Your task to perform on an android device: change alarm snooze length Image 0: 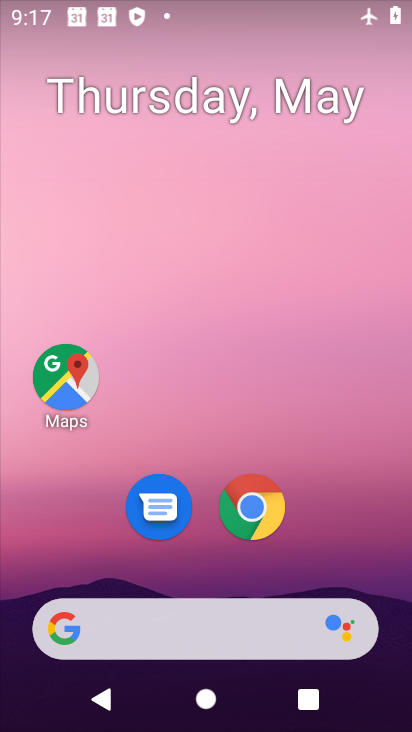
Step 0: drag from (276, 576) to (297, 66)
Your task to perform on an android device: change alarm snooze length Image 1: 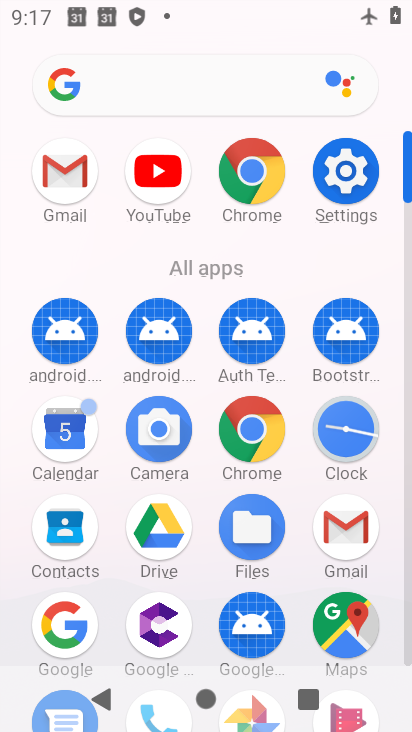
Step 1: click (353, 203)
Your task to perform on an android device: change alarm snooze length Image 2: 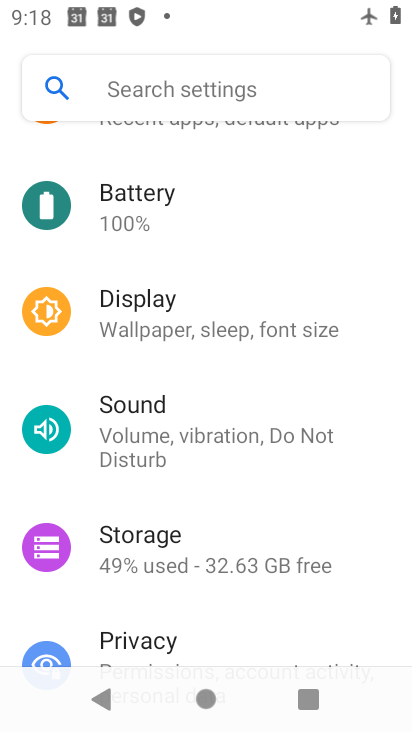
Step 2: press home button
Your task to perform on an android device: change alarm snooze length Image 3: 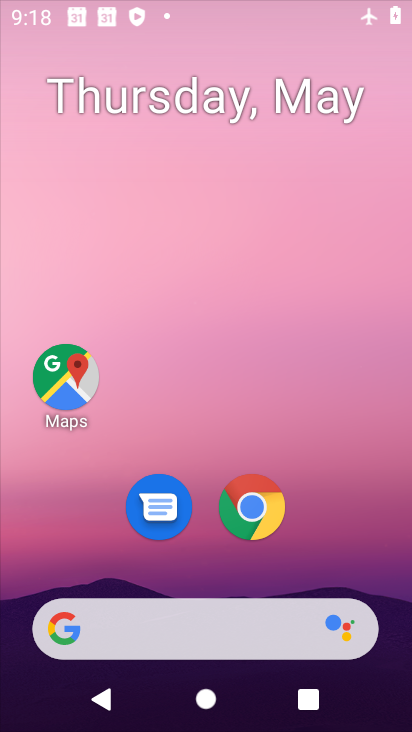
Step 3: drag from (272, 582) to (294, 117)
Your task to perform on an android device: change alarm snooze length Image 4: 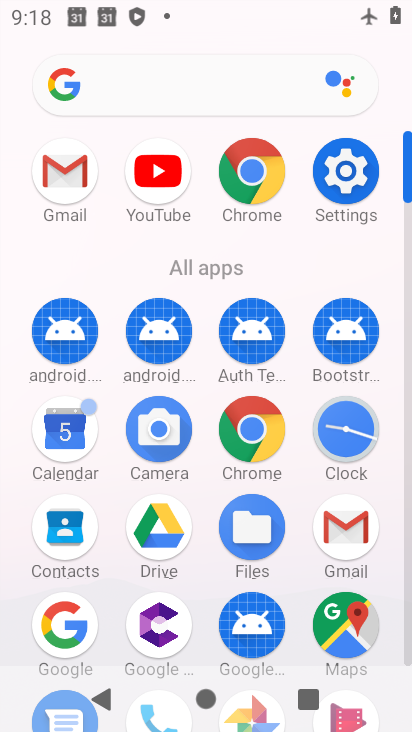
Step 4: click (344, 436)
Your task to perform on an android device: change alarm snooze length Image 5: 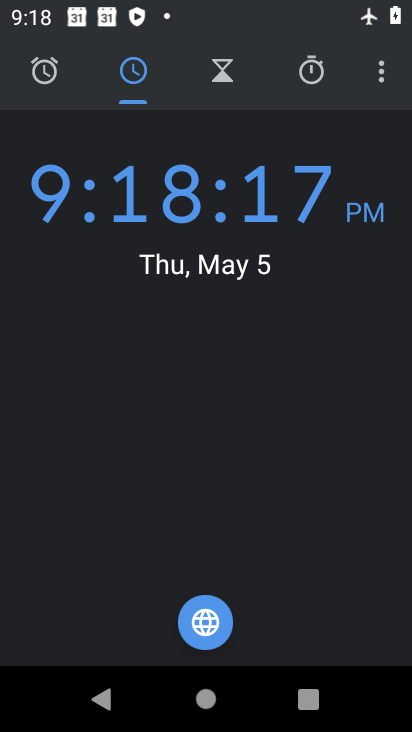
Step 5: click (387, 74)
Your task to perform on an android device: change alarm snooze length Image 6: 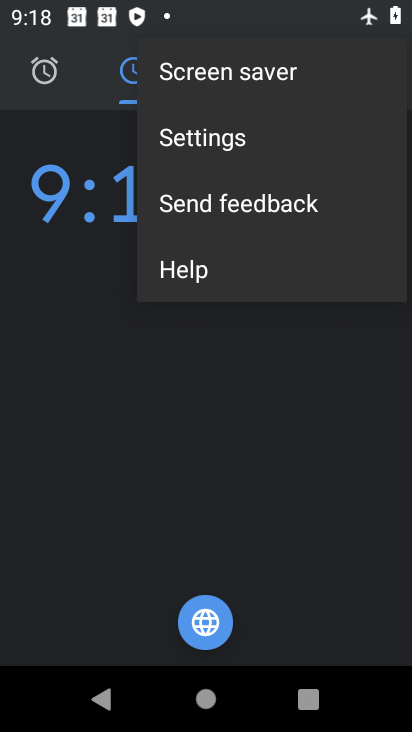
Step 6: click (258, 140)
Your task to perform on an android device: change alarm snooze length Image 7: 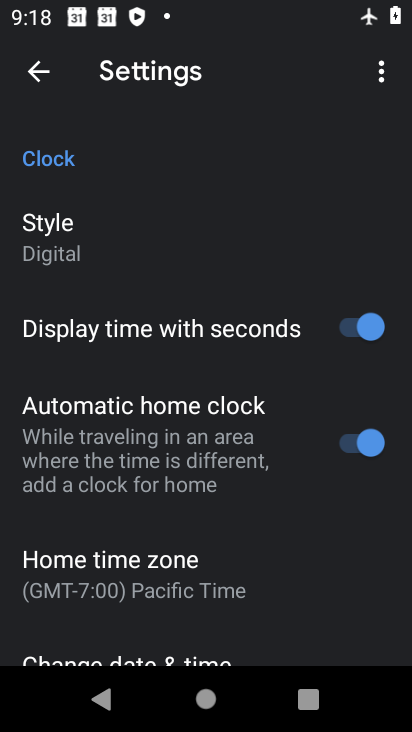
Step 7: drag from (237, 579) to (228, 173)
Your task to perform on an android device: change alarm snooze length Image 8: 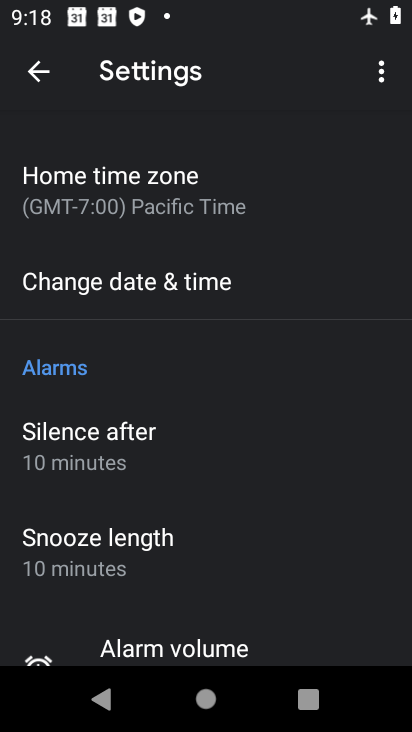
Step 8: click (178, 550)
Your task to perform on an android device: change alarm snooze length Image 9: 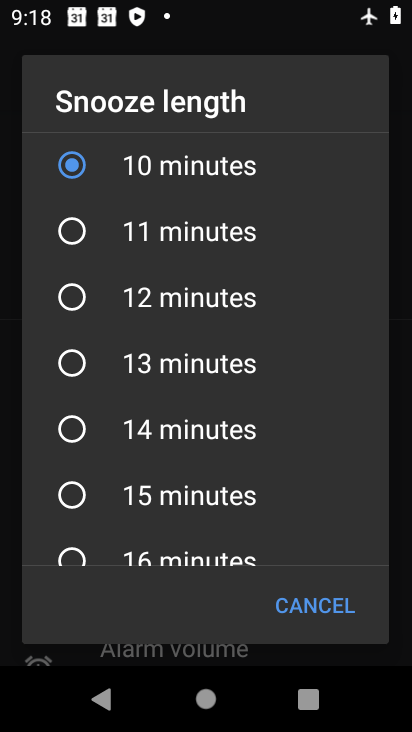
Step 9: click (158, 304)
Your task to perform on an android device: change alarm snooze length Image 10: 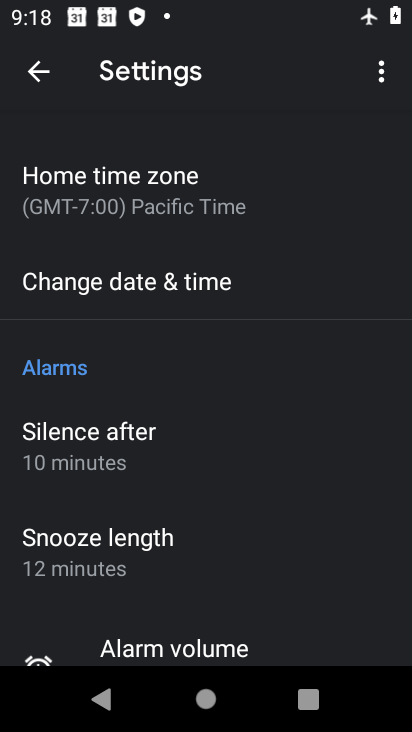
Step 10: task complete